Your task to perform on an android device: change text size in settings app Image 0: 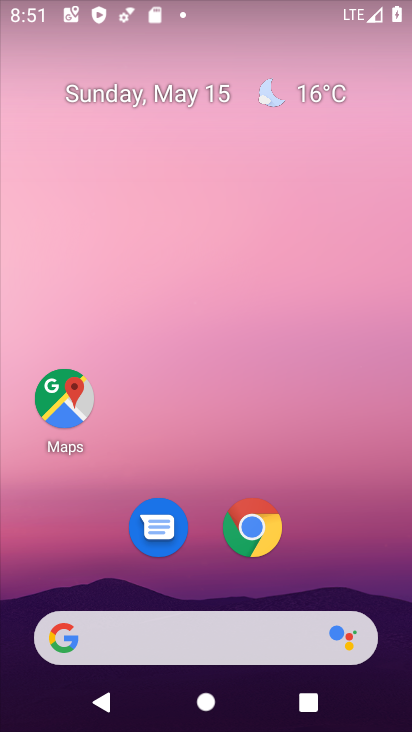
Step 0: drag from (400, 332) to (410, 79)
Your task to perform on an android device: change text size in settings app Image 1: 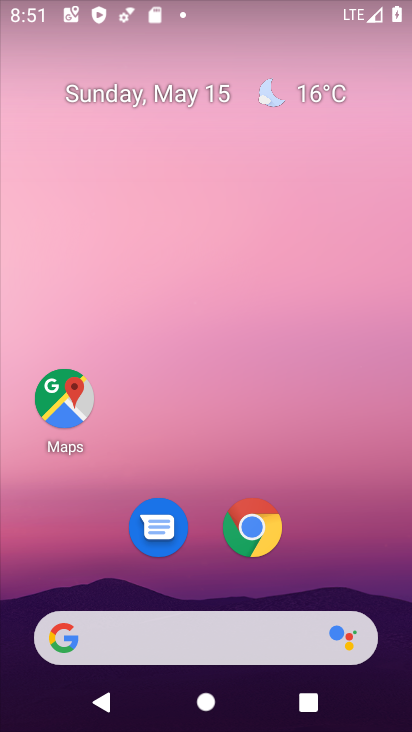
Step 1: drag from (344, 581) to (308, 8)
Your task to perform on an android device: change text size in settings app Image 2: 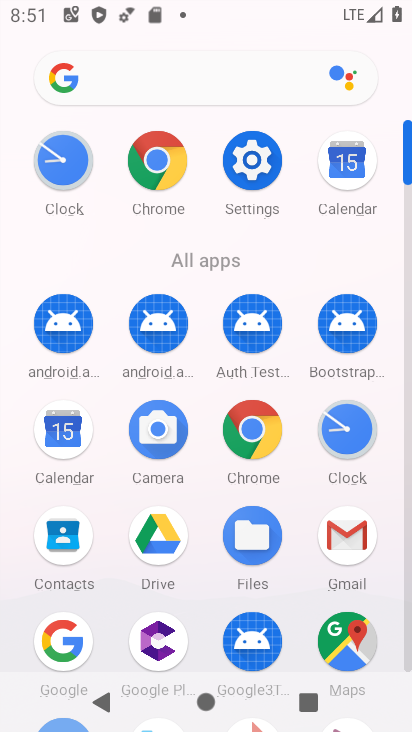
Step 2: click (253, 165)
Your task to perform on an android device: change text size in settings app Image 3: 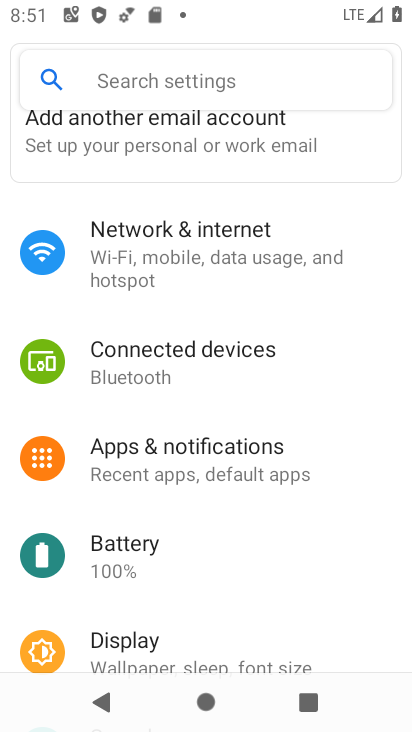
Step 3: click (129, 649)
Your task to perform on an android device: change text size in settings app Image 4: 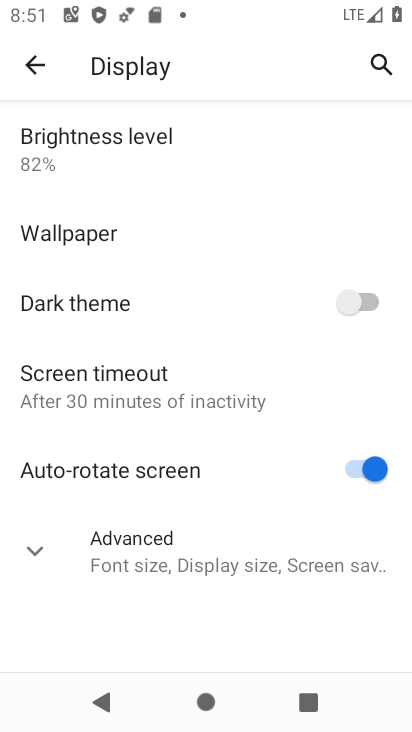
Step 4: click (33, 555)
Your task to perform on an android device: change text size in settings app Image 5: 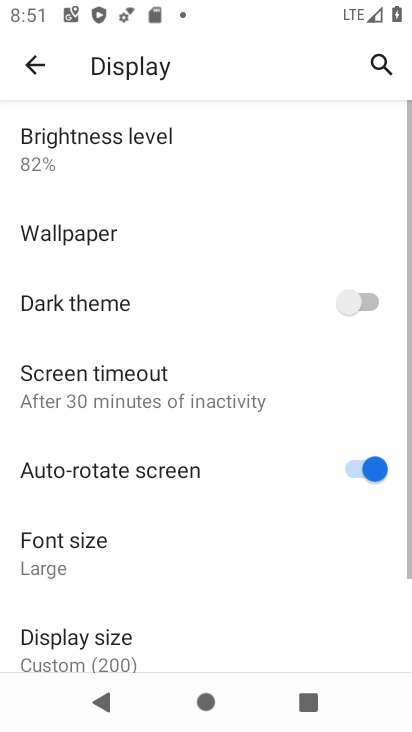
Step 5: click (33, 555)
Your task to perform on an android device: change text size in settings app Image 6: 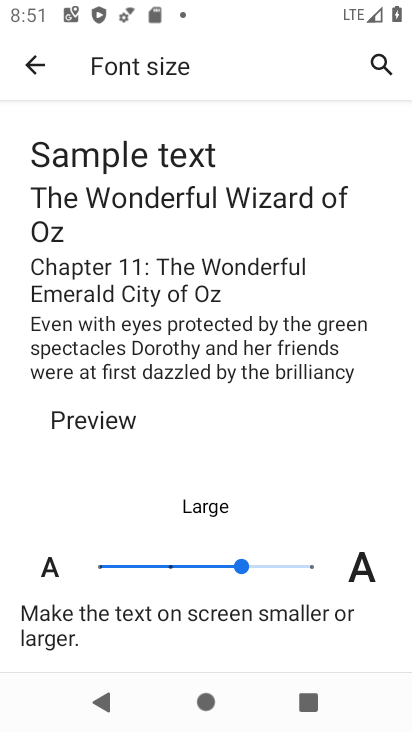
Step 6: click (172, 566)
Your task to perform on an android device: change text size in settings app Image 7: 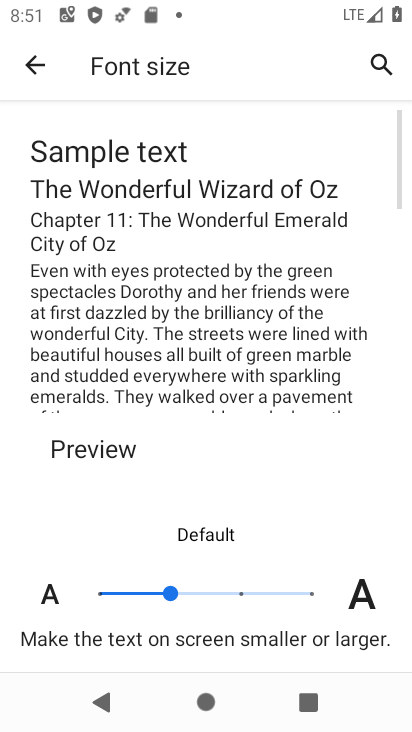
Step 7: task complete